Your task to perform on an android device: Open Google Chrome and click the shortcut for Amazon.com Image 0: 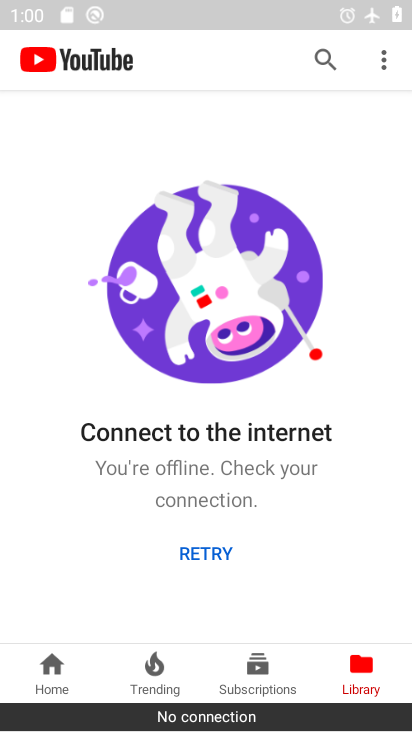
Step 0: press home button
Your task to perform on an android device: Open Google Chrome and click the shortcut for Amazon.com Image 1: 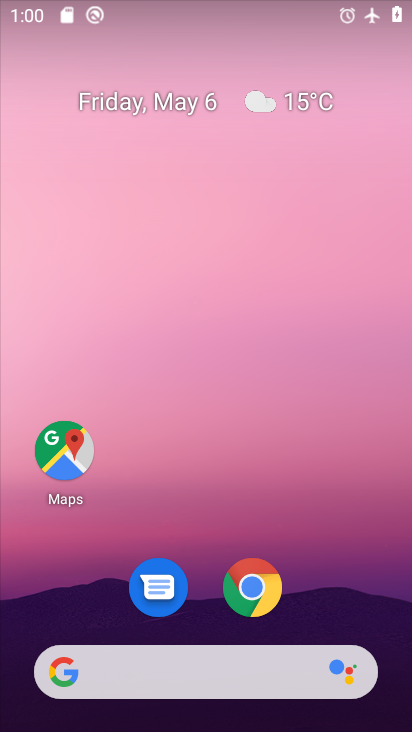
Step 1: click (249, 588)
Your task to perform on an android device: Open Google Chrome and click the shortcut for Amazon.com Image 2: 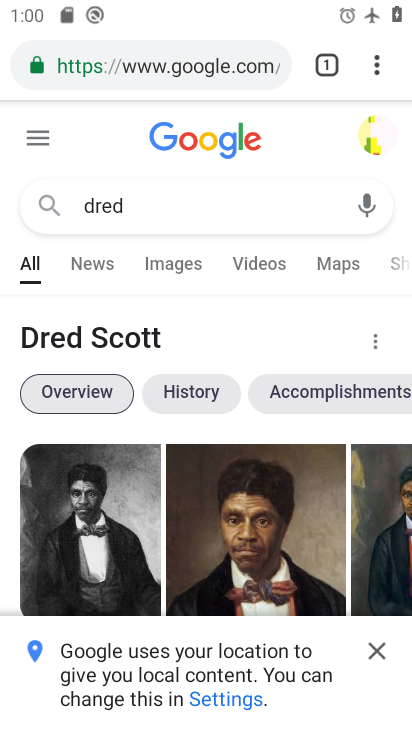
Step 2: click (320, 69)
Your task to perform on an android device: Open Google Chrome and click the shortcut for Amazon.com Image 3: 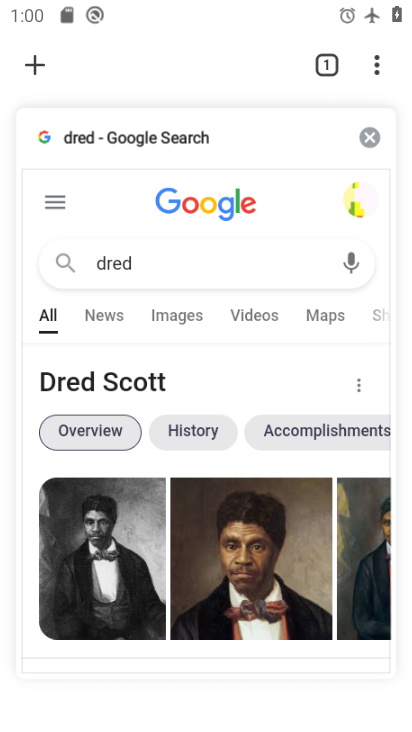
Step 3: click (26, 60)
Your task to perform on an android device: Open Google Chrome and click the shortcut for Amazon.com Image 4: 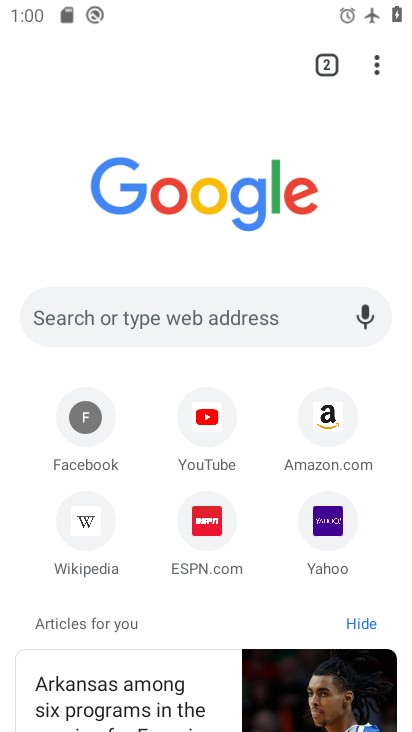
Step 4: click (322, 404)
Your task to perform on an android device: Open Google Chrome and click the shortcut for Amazon.com Image 5: 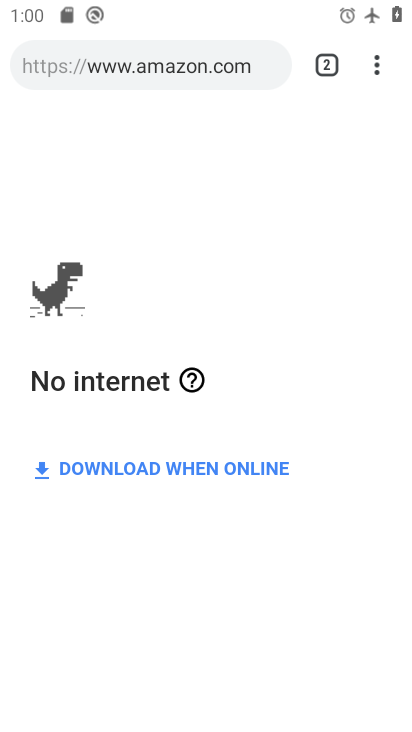
Step 5: task complete